Your task to perform on an android device: change timer sound Image 0: 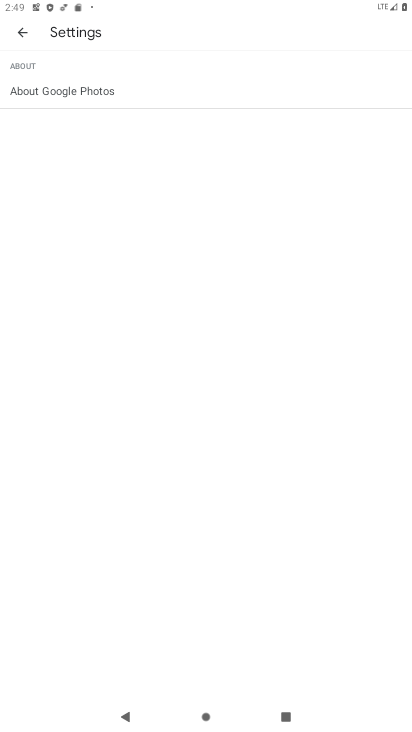
Step 0: press home button
Your task to perform on an android device: change timer sound Image 1: 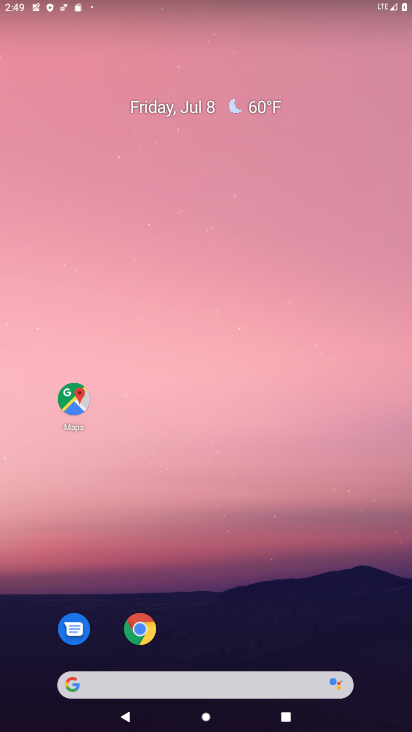
Step 1: drag from (216, 633) to (241, 201)
Your task to perform on an android device: change timer sound Image 2: 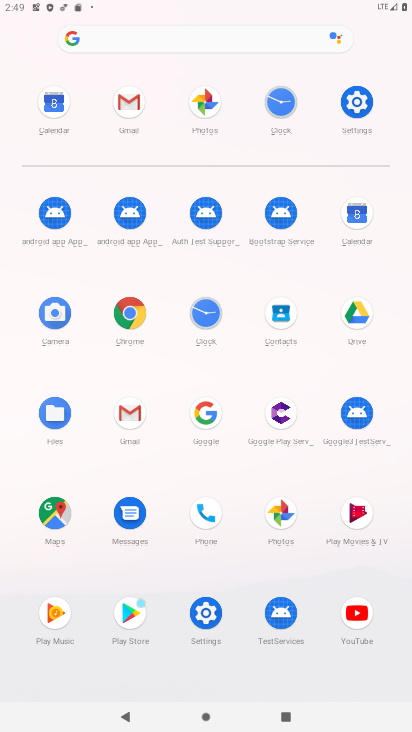
Step 2: click (285, 111)
Your task to perform on an android device: change timer sound Image 3: 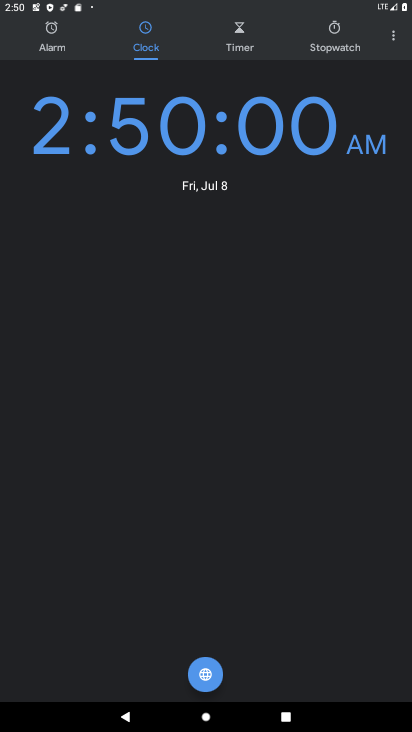
Step 3: click (390, 42)
Your task to perform on an android device: change timer sound Image 4: 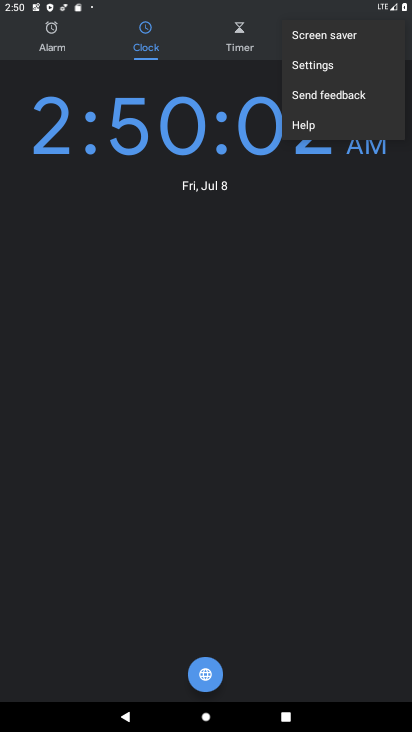
Step 4: click (355, 66)
Your task to perform on an android device: change timer sound Image 5: 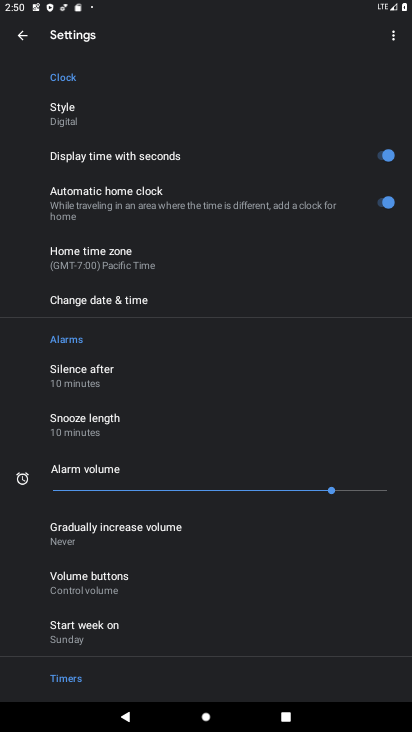
Step 5: drag from (171, 570) to (200, 332)
Your task to perform on an android device: change timer sound Image 6: 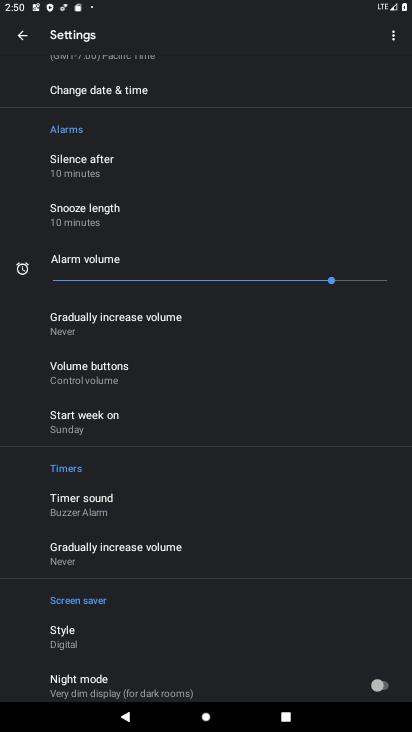
Step 6: click (131, 507)
Your task to perform on an android device: change timer sound Image 7: 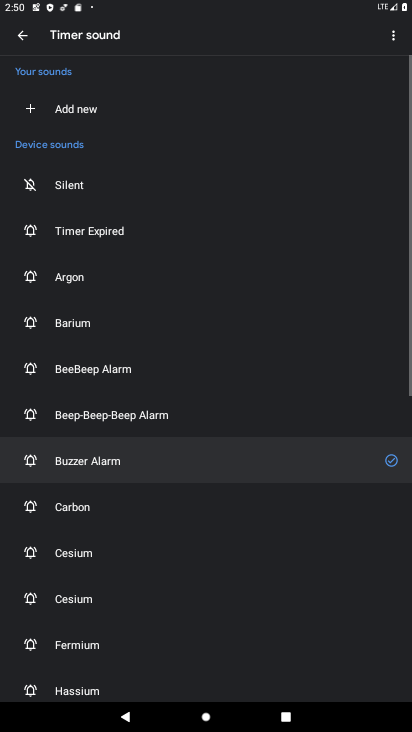
Step 7: click (125, 312)
Your task to perform on an android device: change timer sound Image 8: 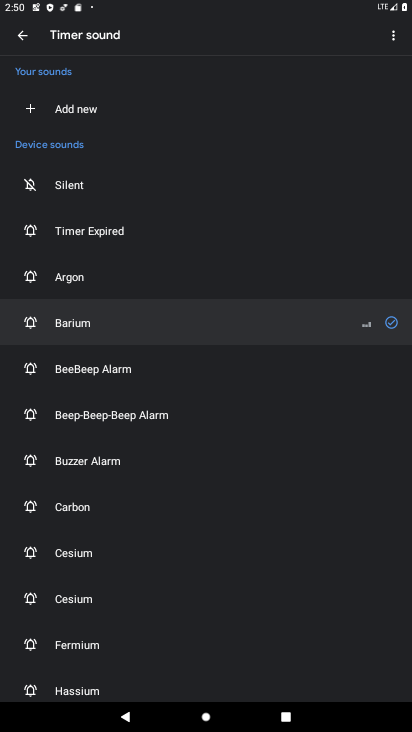
Step 8: task complete